Your task to perform on an android device: stop showing notifications on the lock screen Image 0: 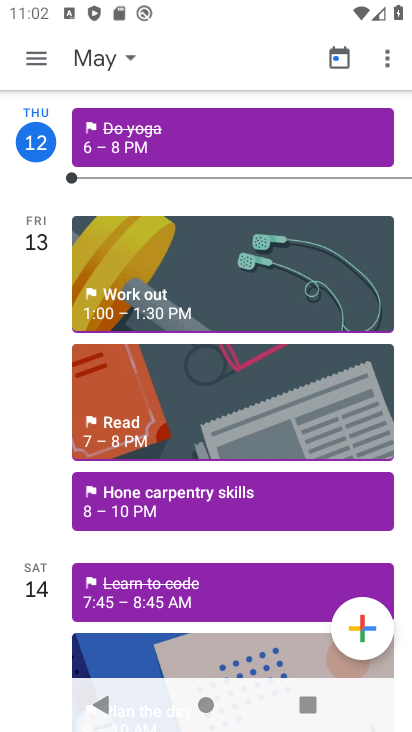
Step 0: press home button
Your task to perform on an android device: stop showing notifications on the lock screen Image 1: 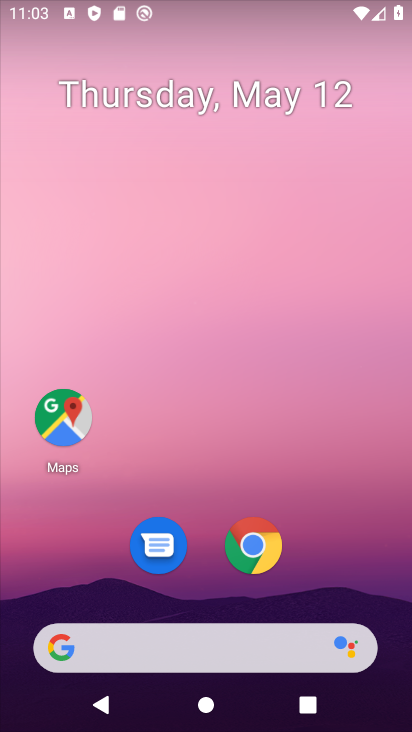
Step 1: drag from (289, 682) to (225, 131)
Your task to perform on an android device: stop showing notifications on the lock screen Image 2: 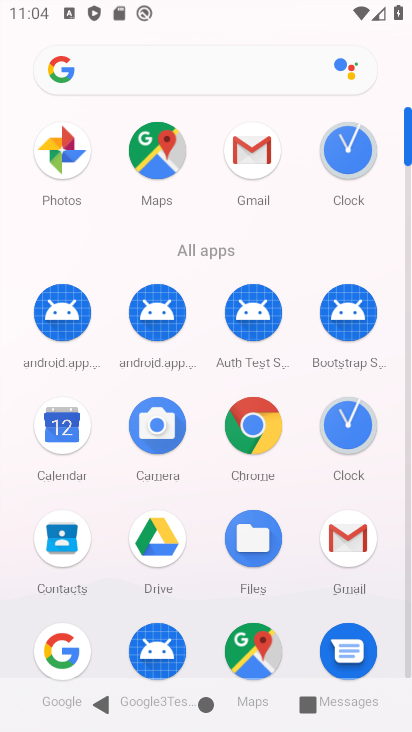
Step 2: drag from (94, 485) to (150, 278)
Your task to perform on an android device: stop showing notifications on the lock screen Image 3: 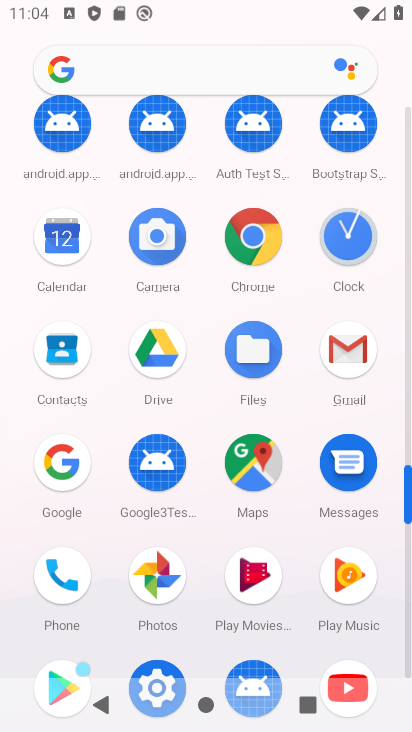
Step 3: click (166, 663)
Your task to perform on an android device: stop showing notifications on the lock screen Image 4: 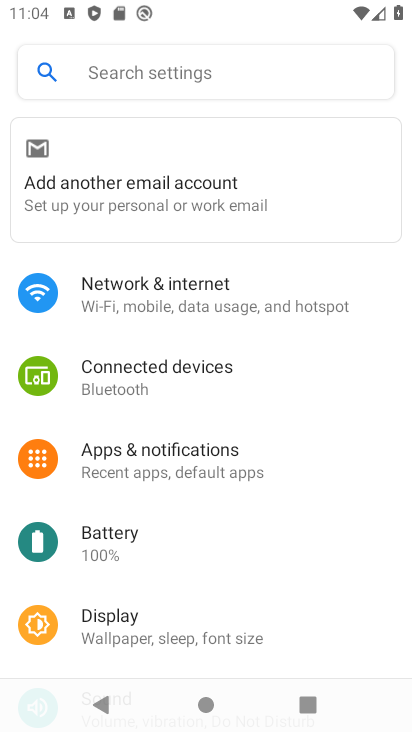
Step 4: click (165, 86)
Your task to perform on an android device: stop showing notifications on the lock screen Image 5: 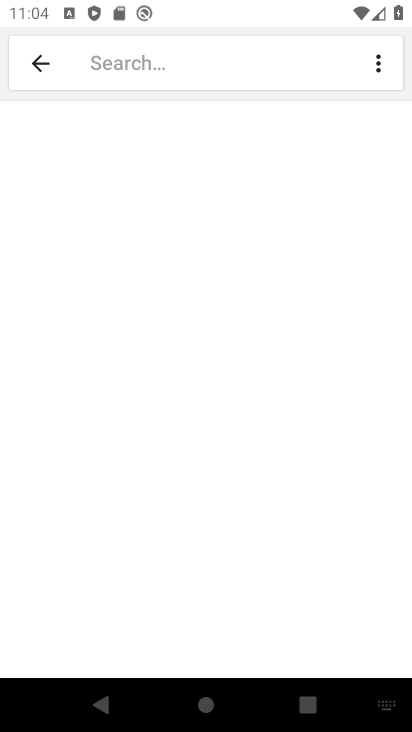
Step 5: click (386, 711)
Your task to perform on an android device: stop showing notifications on the lock screen Image 6: 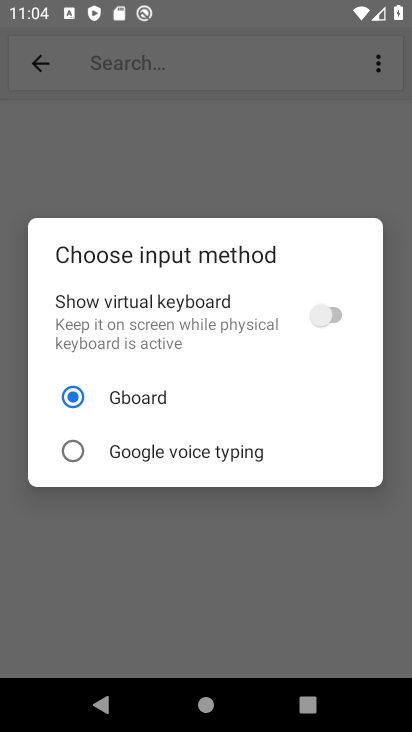
Step 6: click (323, 318)
Your task to perform on an android device: stop showing notifications on the lock screen Image 7: 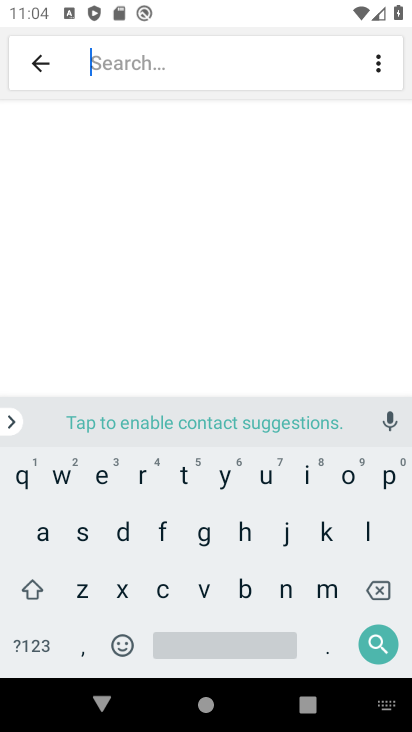
Step 7: click (274, 595)
Your task to perform on an android device: stop showing notifications on the lock screen Image 8: 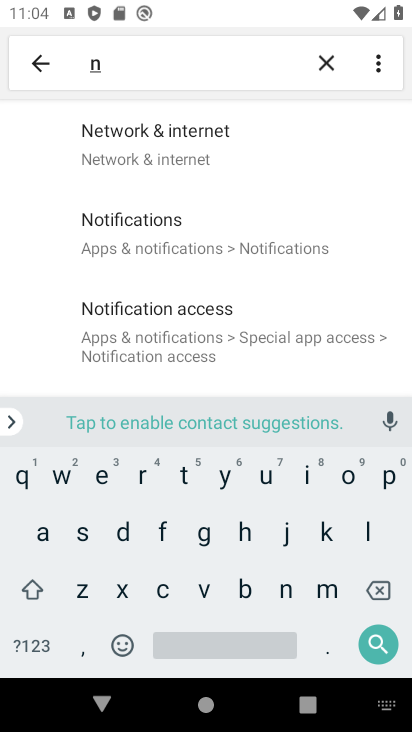
Step 8: click (335, 480)
Your task to perform on an android device: stop showing notifications on the lock screen Image 9: 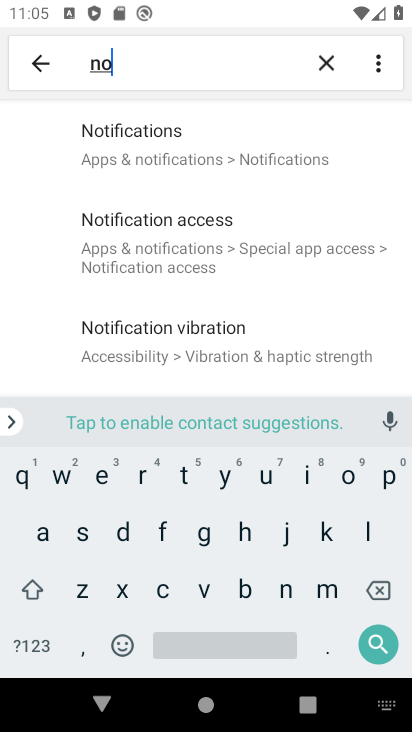
Step 9: click (239, 160)
Your task to perform on an android device: stop showing notifications on the lock screen Image 10: 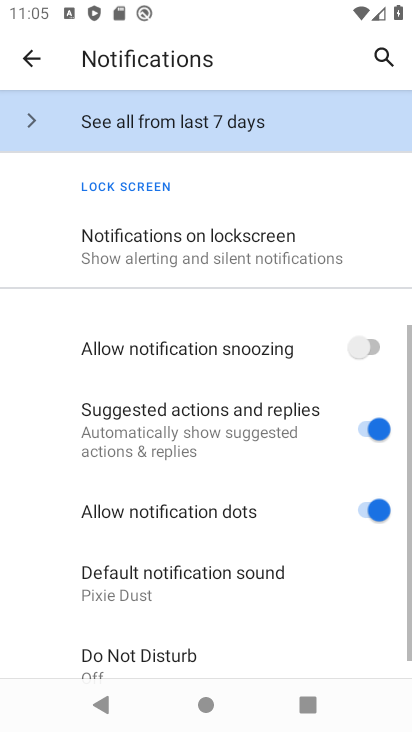
Step 10: click (169, 252)
Your task to perform on an android device: stop showing notifications on the lock screen Image 11: 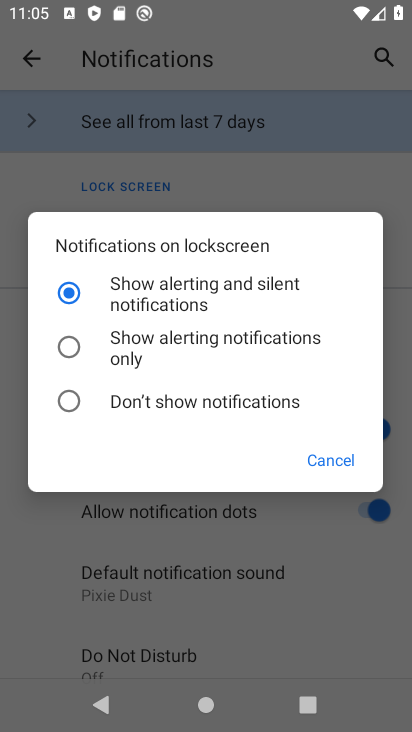
Step 11: click (131, 391)
Your task to perform on an android device: stop showing notifications on the lock screen Image 12: 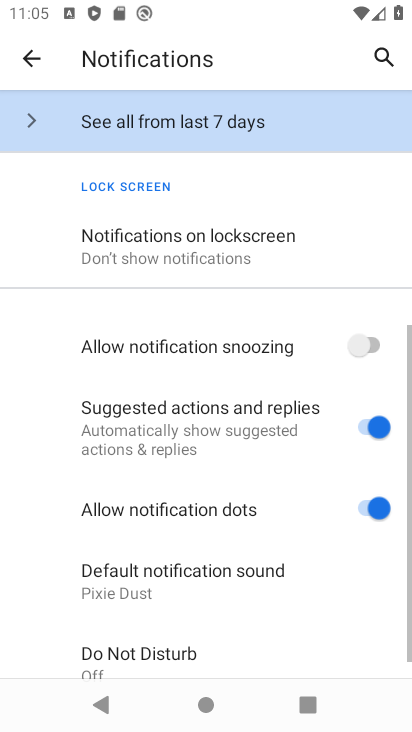
Step 12: task complete